Your task to perform on an android device: open device folders in google photos Image 0: 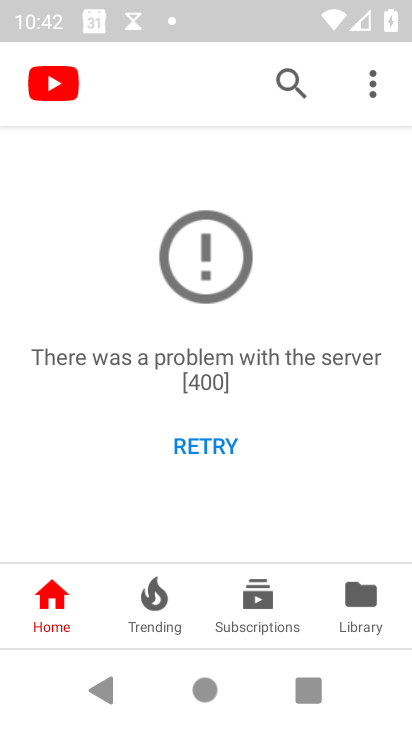
Step 0: press home button
Your task to perform on an android device: open device folders in google photos Image 1: 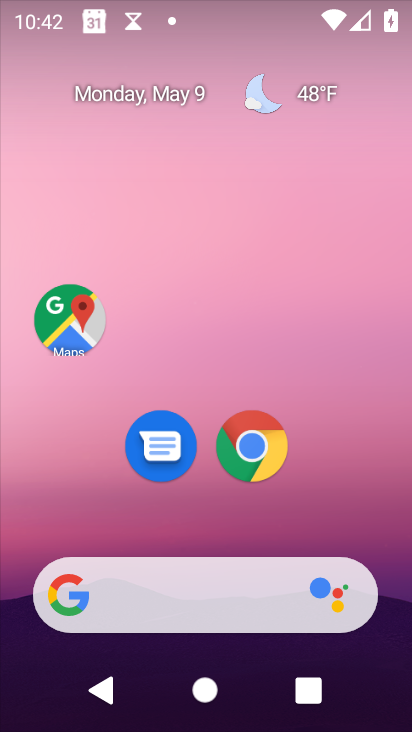
Step 1: drag from (325, 521) to (271, 42)
Your task to perform on an android device: open device folders in google photos Image 2: 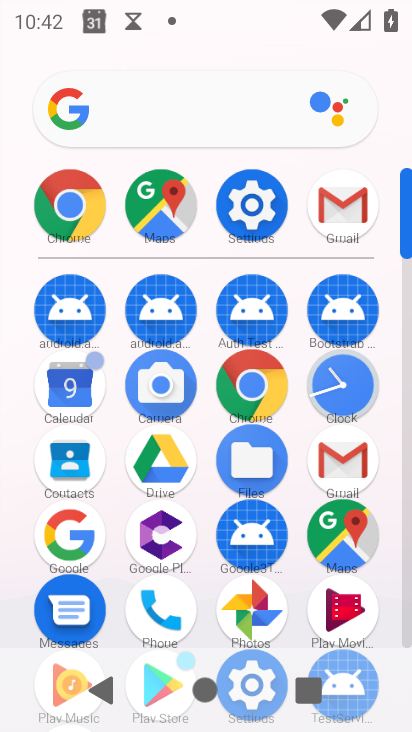
Step 2: click (263, 603)
Your task to perform on an android device: open device folders in google photos Image 3: 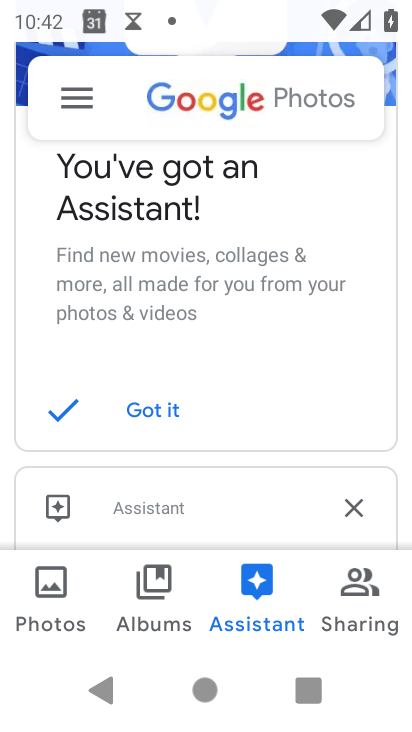
Step 3: click (64, 104)
Your task to perform on an android device: open device folders in google photos Image 4: 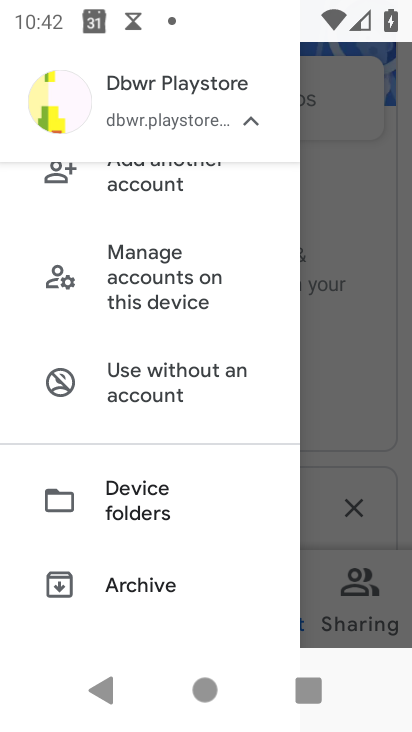
Step 4: drag from (143, 215) to (231, 357)
Your task to perform on an android device: open device folders in google photos Image 5: 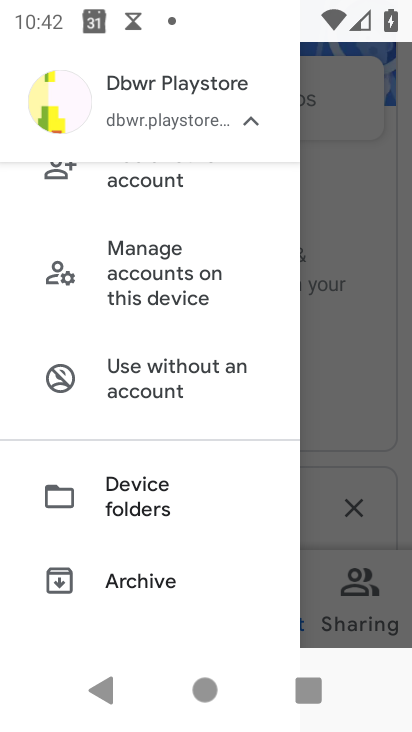
Step 5: click (182, 489)
Your task to perform on an android device: open device folders in google photos Image 6: 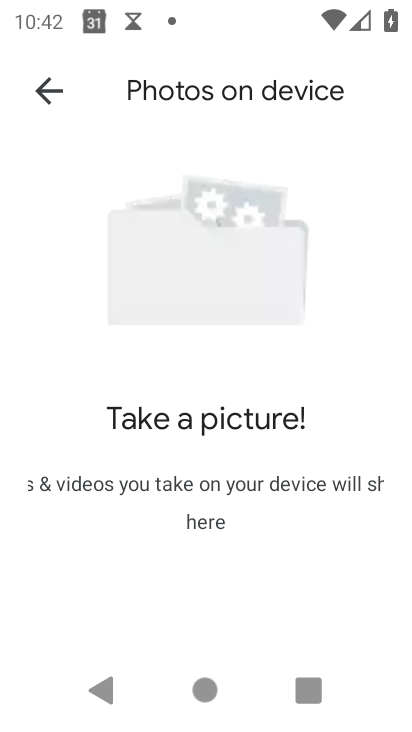
Step 6: task complete